Your task to perform on an android device: search for starred emails in the gmail app Image 0: 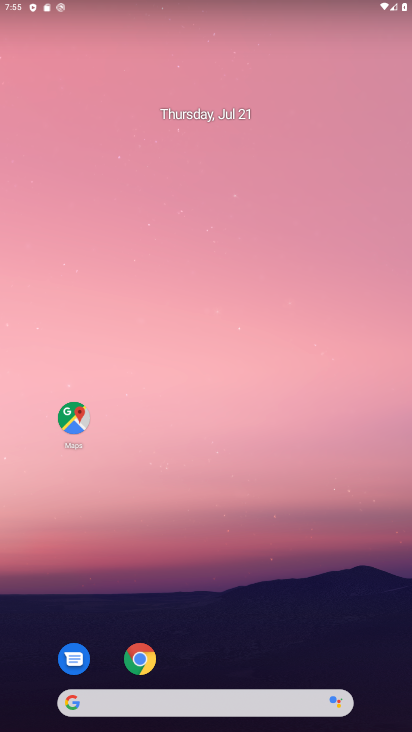
Step 0: press home button
Your task to perform on an android device: search for starred emails in the gmail app Image 1: 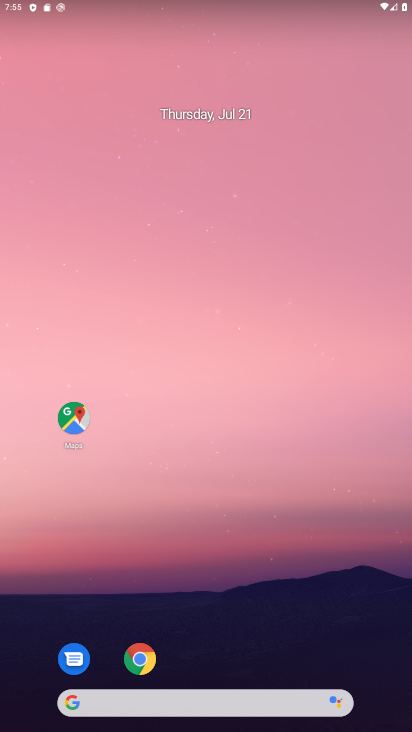
Step 1: drag from (205, 638) to (247, 172)
Your task to perform on an android device: search for starred emails in the gmail app Image 2: 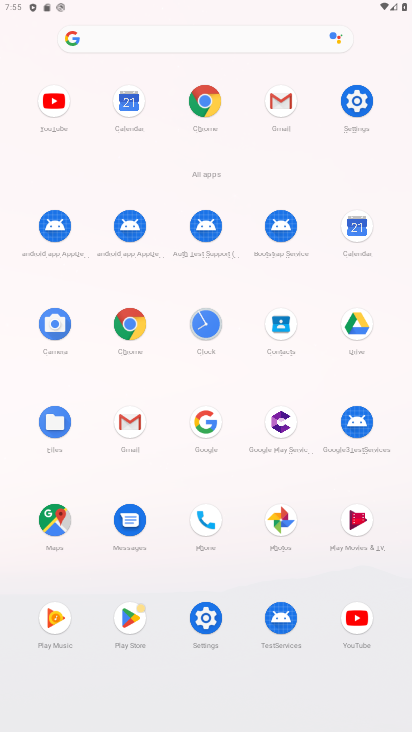
Step 2: click (288, 106)
Your task to perform on an android device: search for starred emails in the gmail app Image 3: 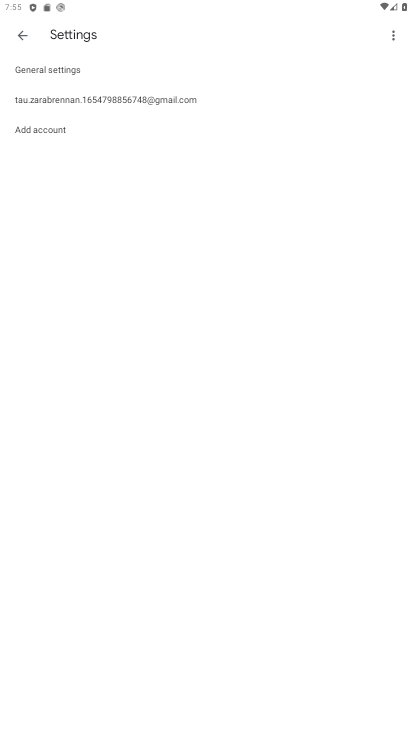
Step 3: click (16, 38)
Your task to perform on an android device: search for starred emails in the gmail app Image 4: 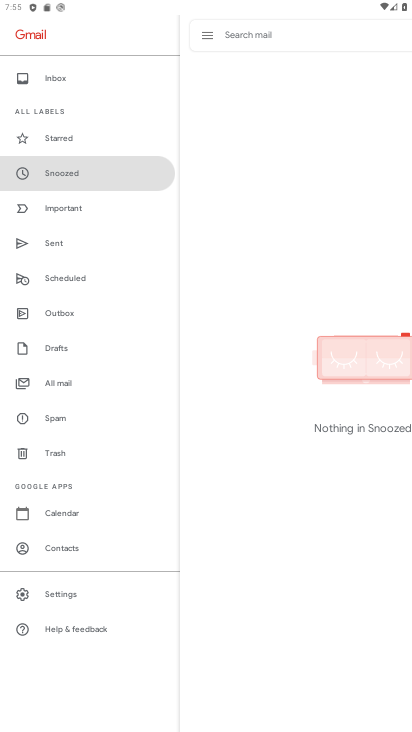
Step 4: click (87, 145)
Your task to perform on an android device: search for starred emails in the gmail app Image 5: 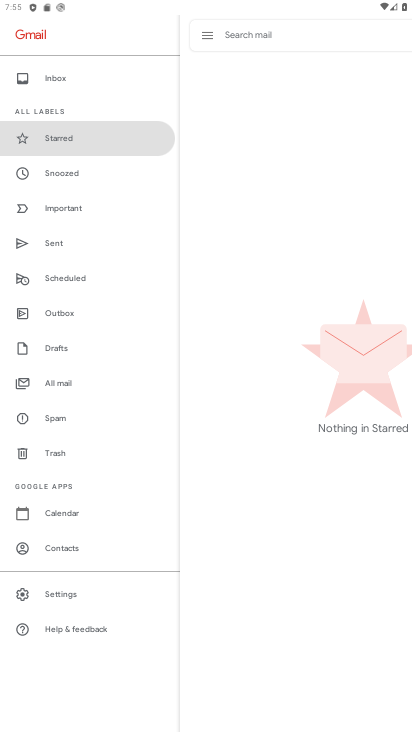
Step 5: task complete